Your task to perform on an android device: What's the news in Puerto Rico? Image 0: 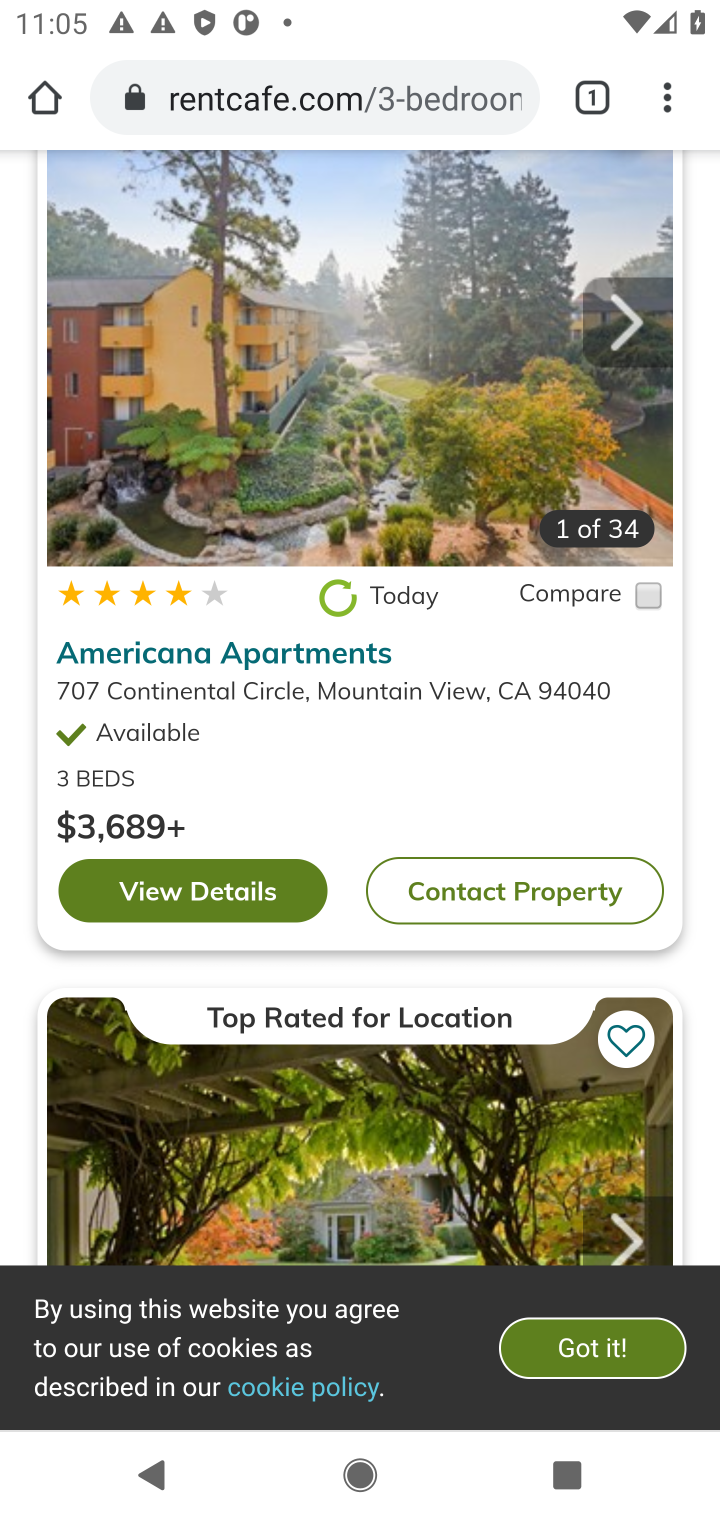
Step 0: click (390, 89)
Your task to perform on an android device: What's the news in Puerto Rico? Image 1: 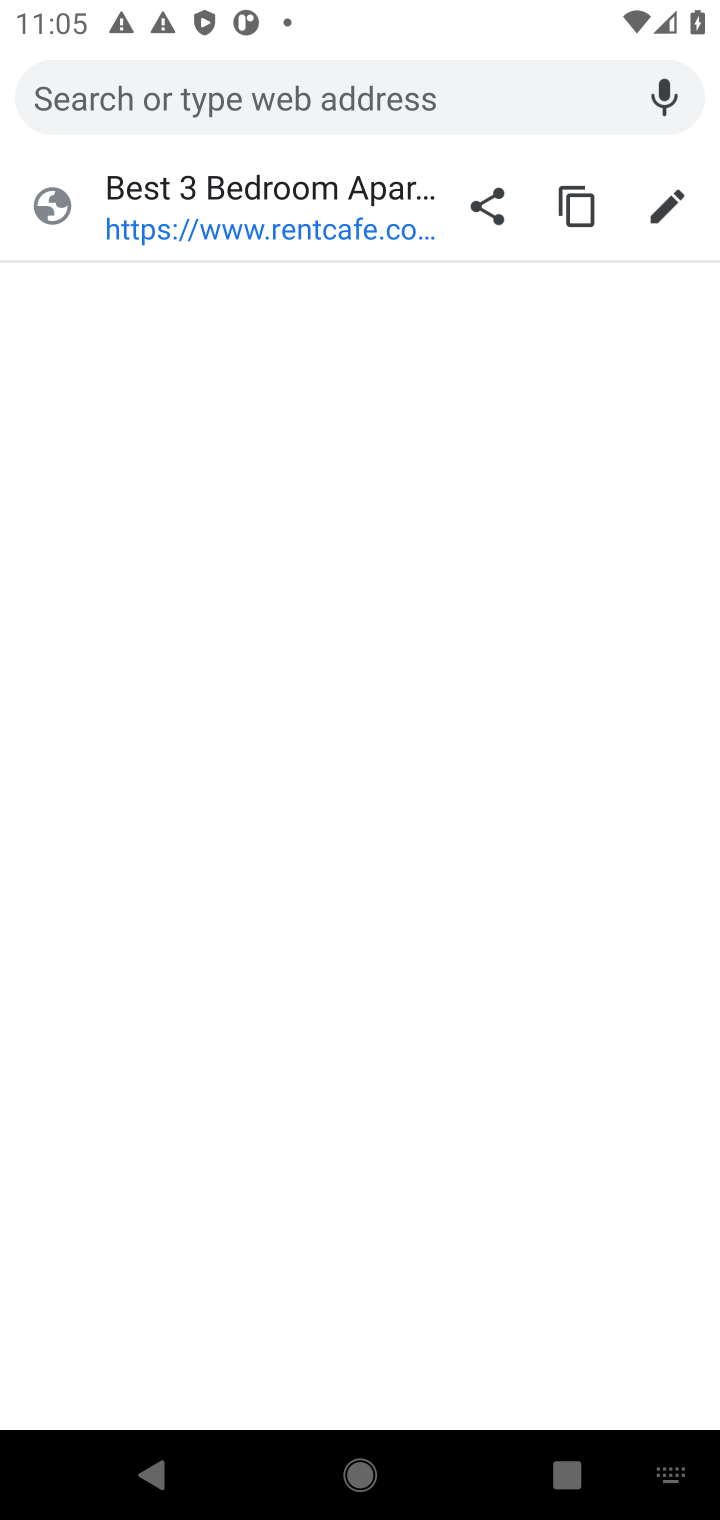
Step 1: type "What's the news in Puerto Rico?"
Your task to perform on an android device: What's the news in Puerto Rico? Image 2: 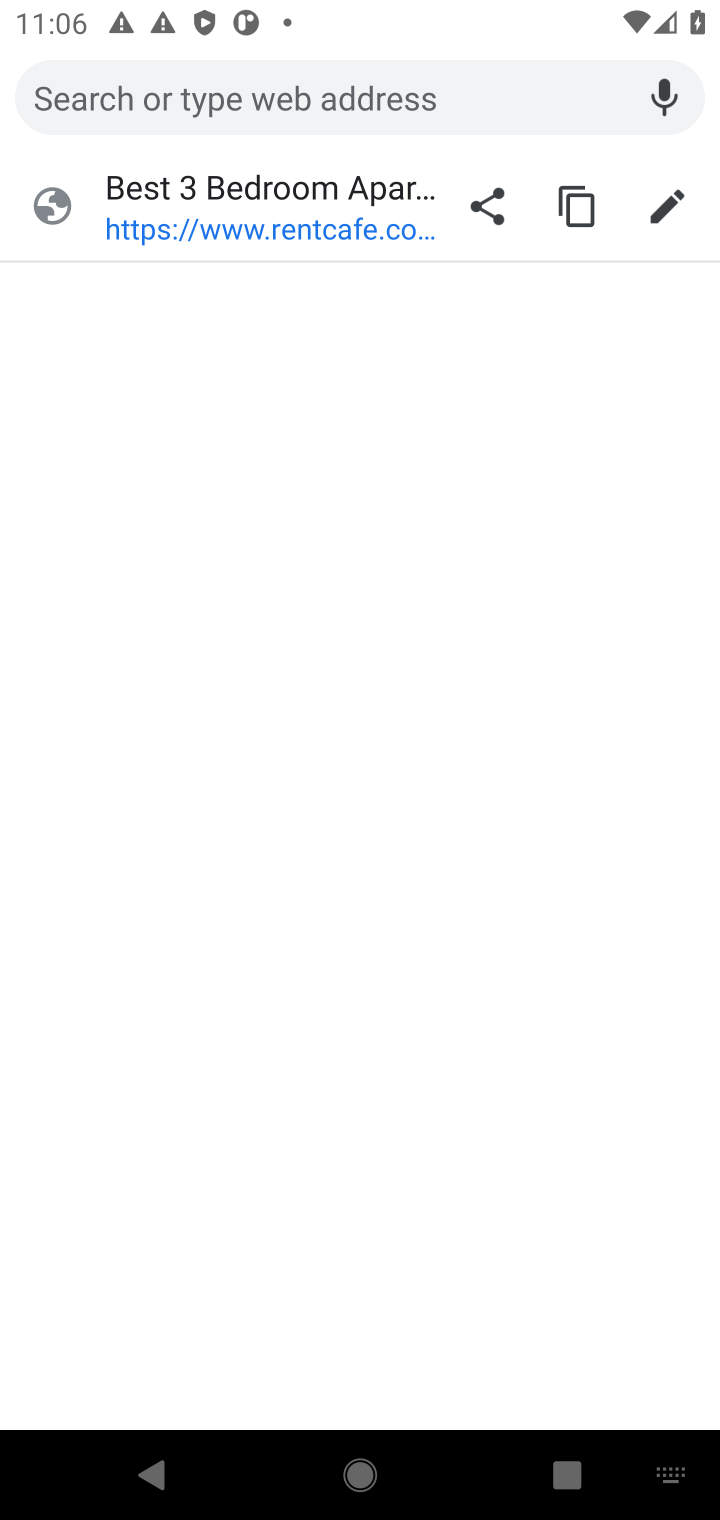
Step 2: click (290, 95)
Your task to perform on an android device: What's the news in Puerto Rico? Image 3: 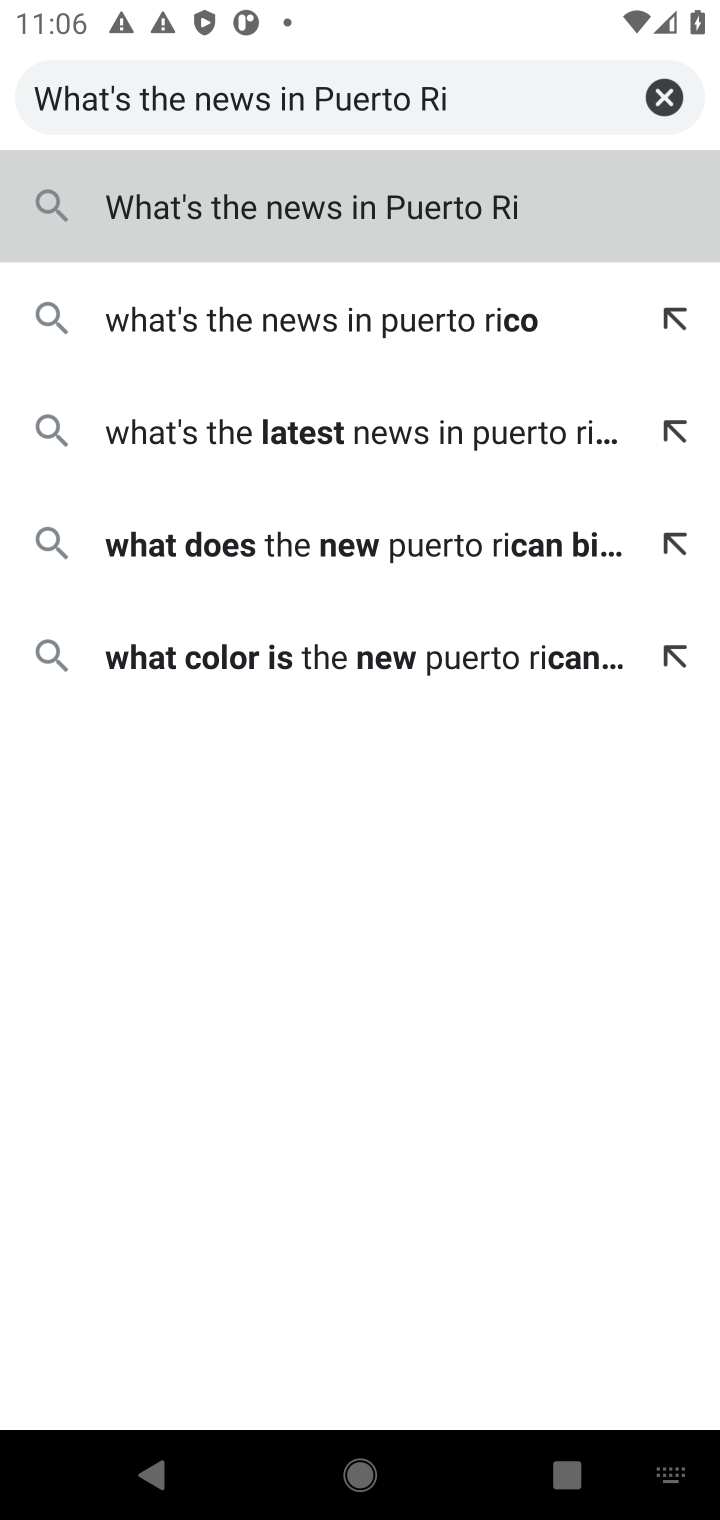
Step 3: click (273, 209)
Your task to perform on an android device: What's the news in Puerto Rico? Image 4: 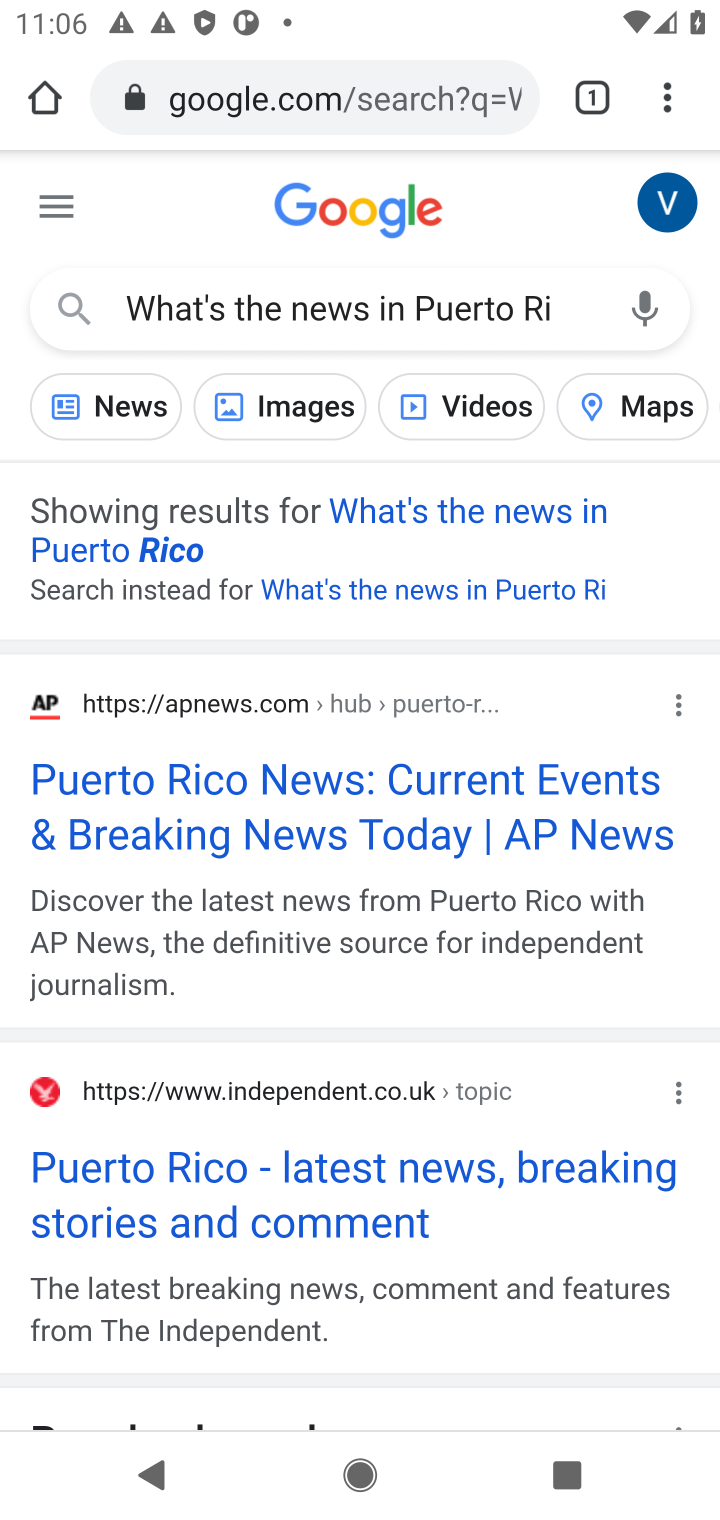
Step 4: click (436, 796)
Your task to perform on an android device: What's the news in Puerto Rico? Image 5: 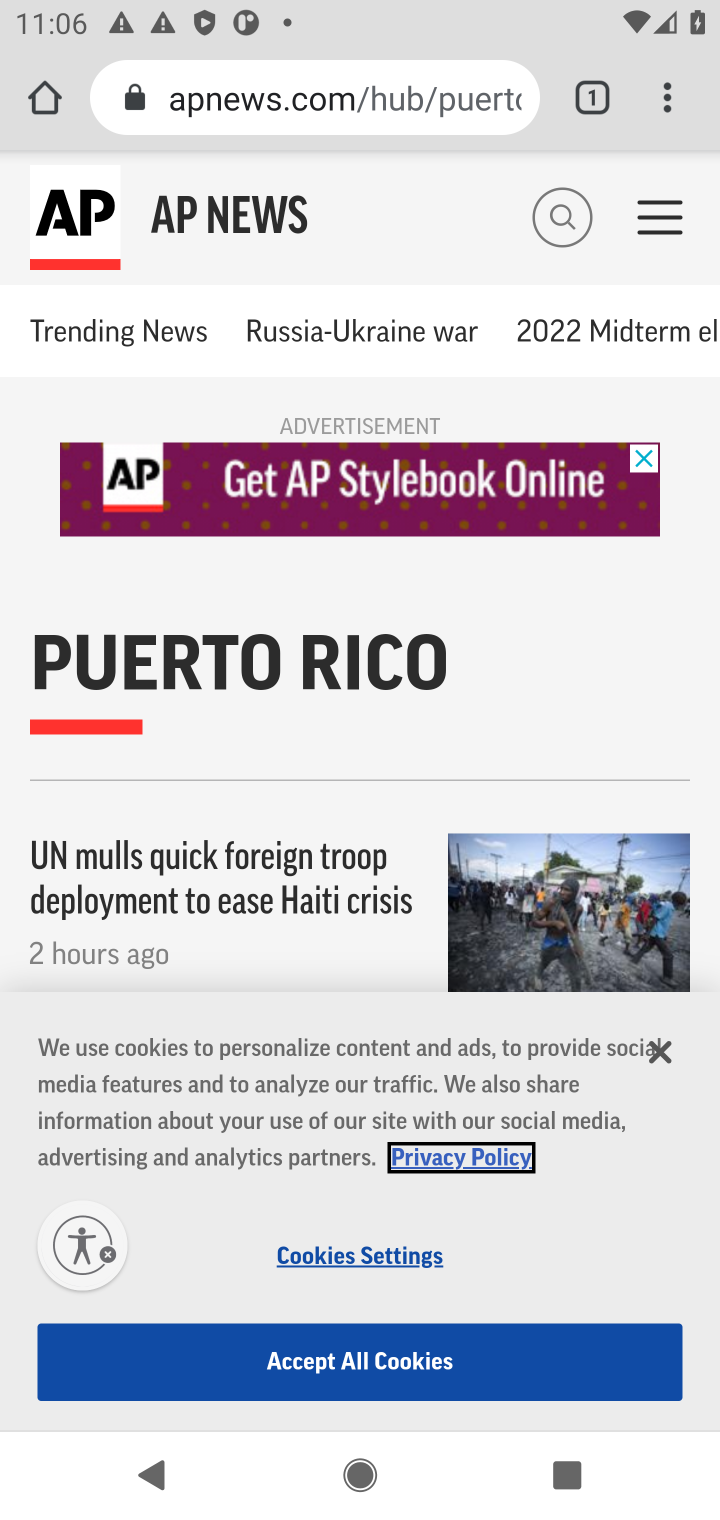
Step 5: task complete